Your task to perform on an android device: change the clock style Image 0: 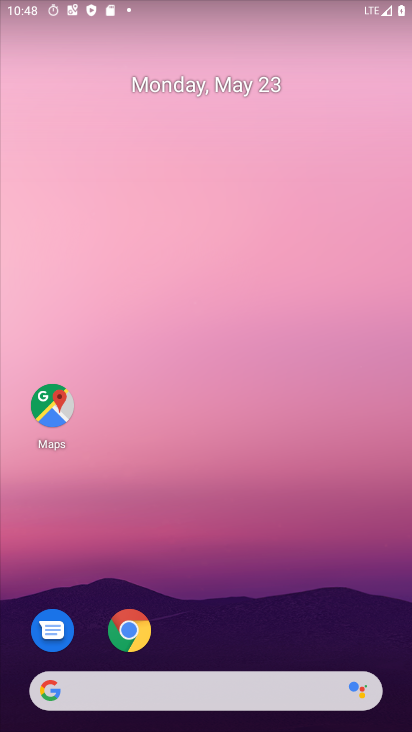
Step 0: drag from (250, 663) to (250, 7)
Your task to perform on an android device: change the clock style Image 1: 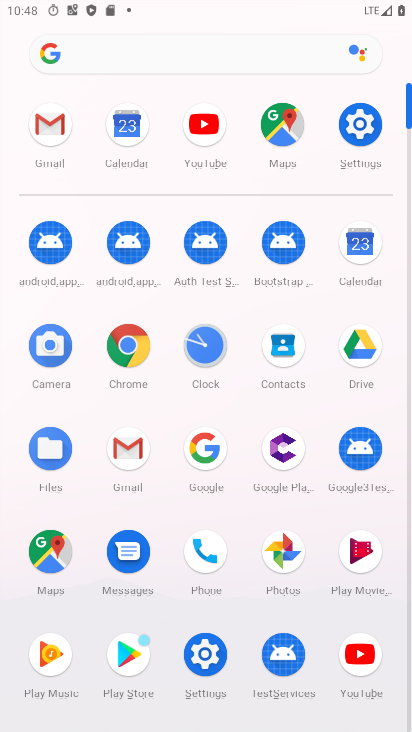
Step 1: click (204, 350)
Your task to perform on an android device: change the clock style Image 2: 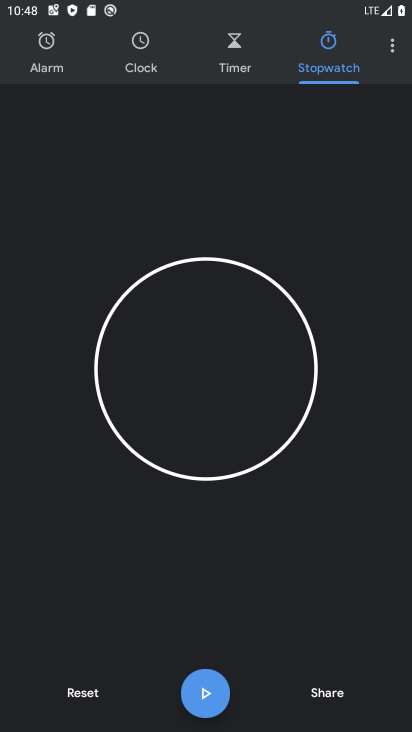
Step 2: click (394, 53)
Your task to perform on an android device: change the clock style Image 3: 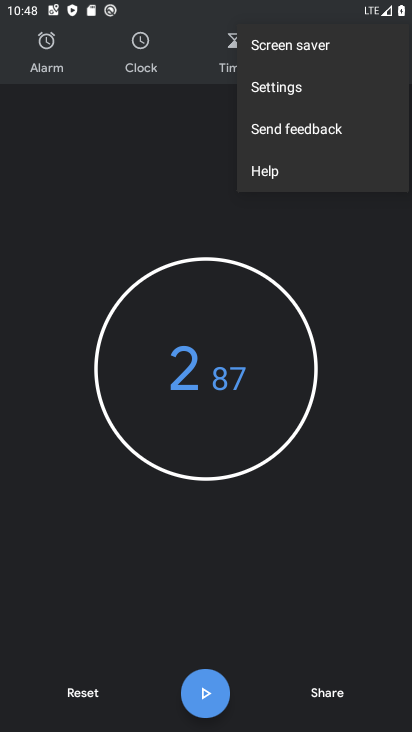
Step 3: click (268, 89)
Your task to perform on an android device: change the clock style Image 4: 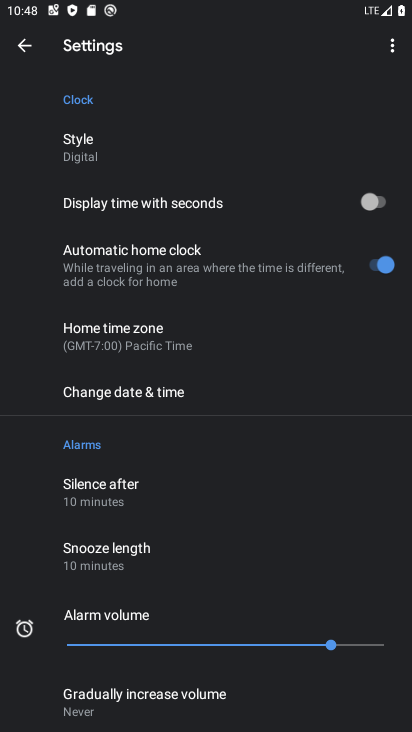
Step 4: click (74, 154)
Your task to perform on an android device: change the clock style Image 5: 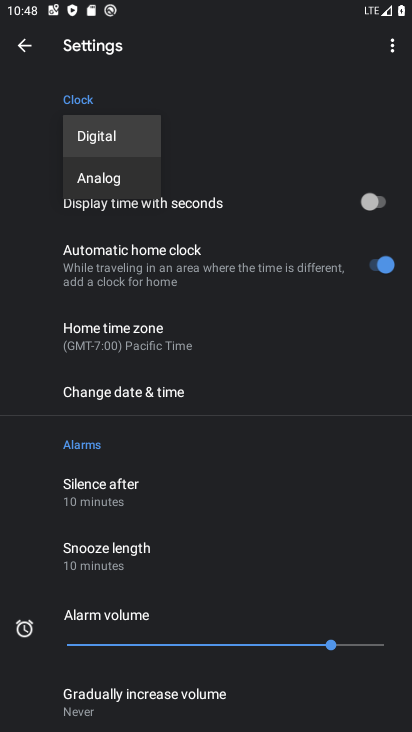
Step 5: click (84, 183)
Your task to perform on an android device: change the clock style Image 6: 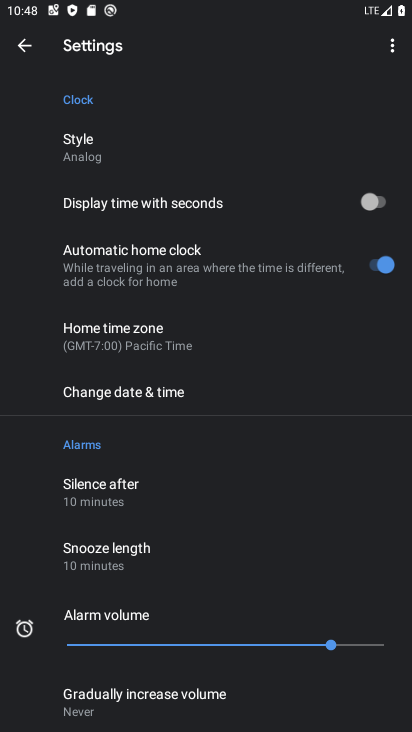
Step 6: task complete